Your task to perform on an android device: Show me recent news Image 0: 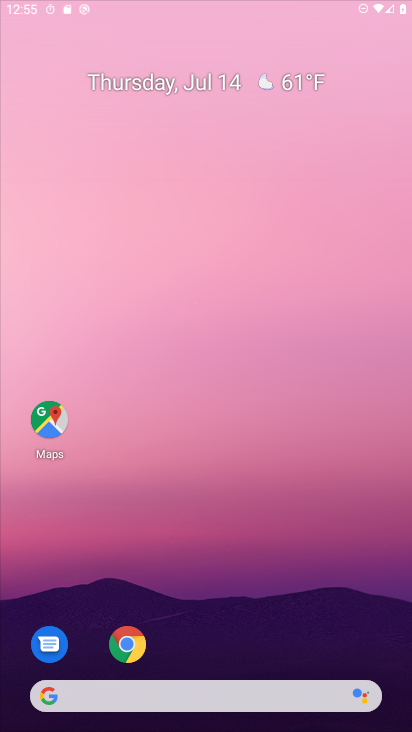
Step 0: click (408, 393)
Your task to perform on an android device: Show me recent news Image 1: 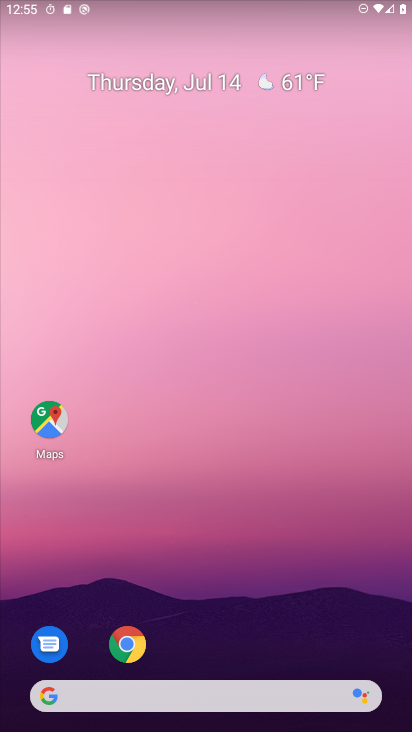
Step 1: drag from (317, 609) to (307, 112)
Your task to perform on an android device: Show me recent news Image 2: 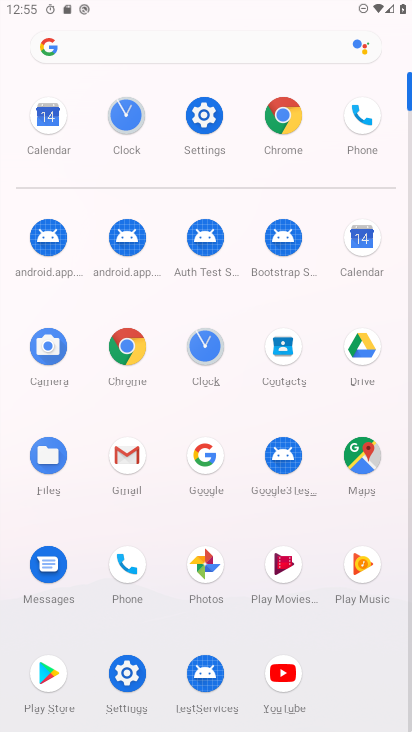
Step 2: click (127, 346)
Your task to perform on an android device: Show me recent news Image 3: 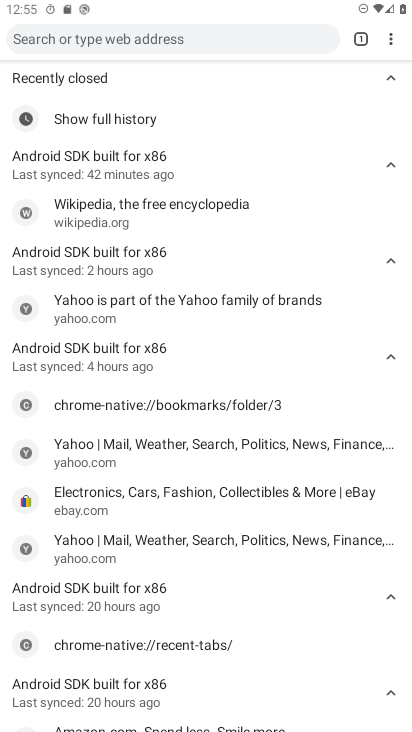
Step 3: click (235, 39)
Your task to perform on an android device: Show me recent news Image 4: 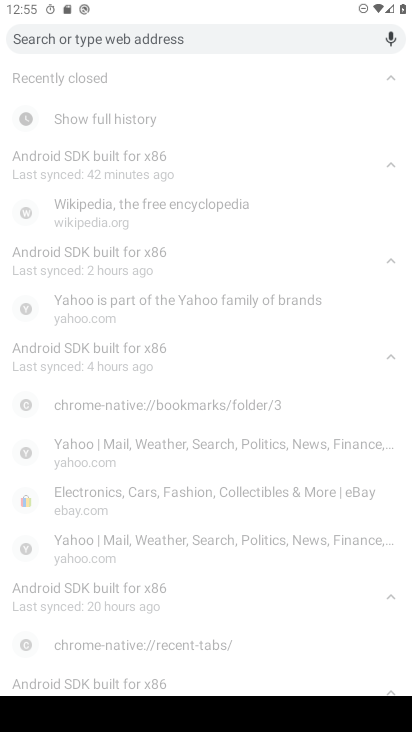
Step 4: type "news"
Your task to perform on an android device: Show me recent news Image 5: 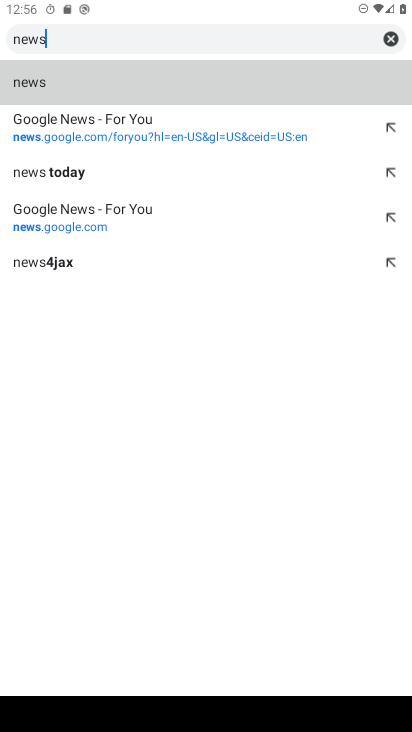
Step 5: click (65, 221)
Your task to perform on an android device: Show me recent news Image 6: 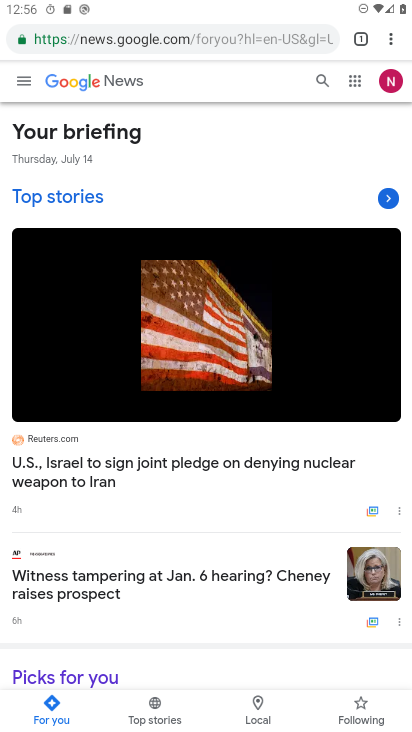
Step 6: task complete